Your task to perform on an android device: turn off improve location accuracy Image 0: 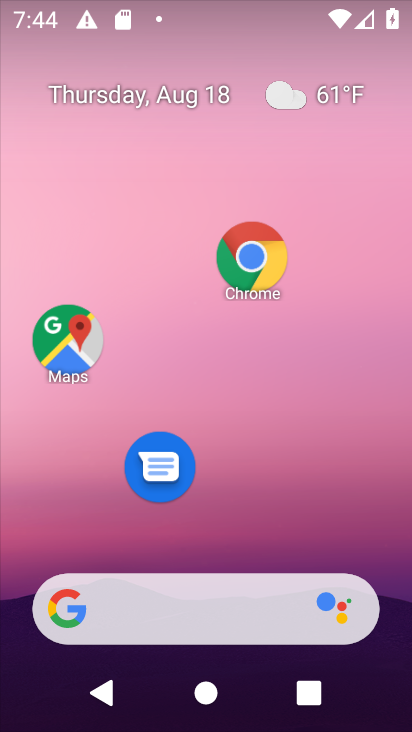
Step 0: drag from (288, 536) to (316, 6)
Your task to perform on an android device: turn off improve location accuracy Image 1: 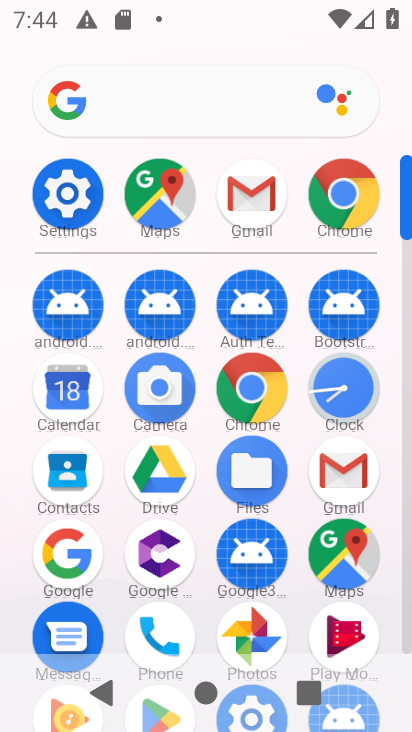
Step 1: drag from (295, 566) to (275, 282)
Your task to perform on an android device: turn off improve location accuracy Image 2: 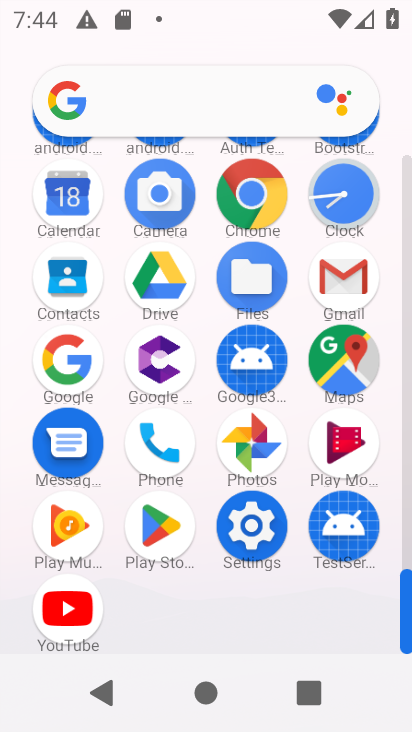
Step 2: click (263, 531)
Your task to perform on an android device: turn off improve location accuracy Image 3: 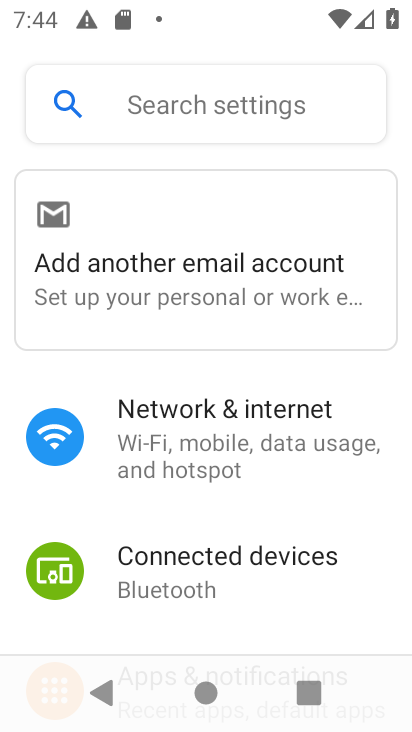
Step 3: task complete